Your task to perform on an android device: add a contact Image 0: 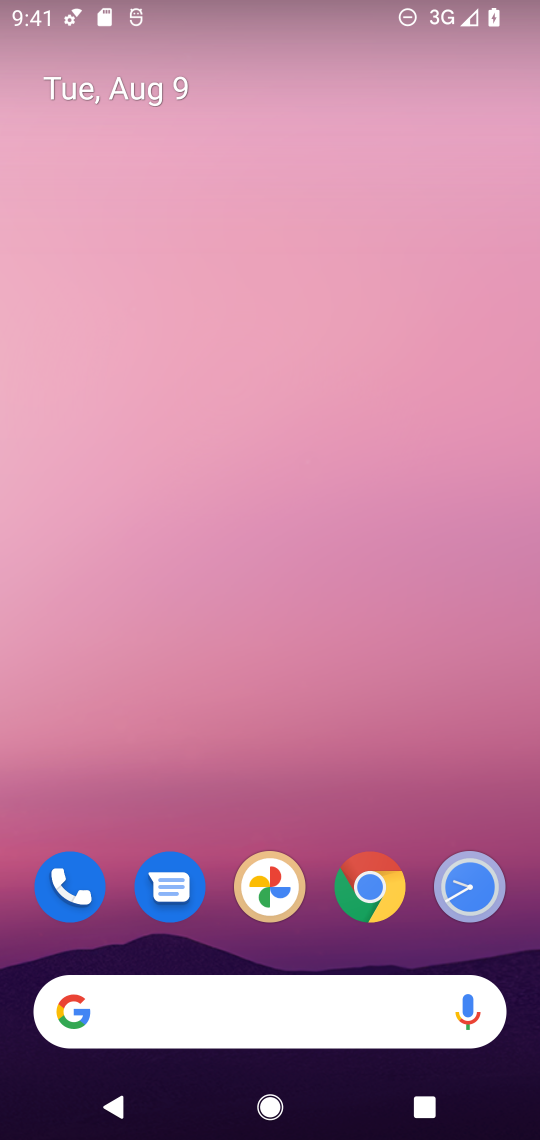
Step 0: drag from (349, 369) to (377, 177)
Your task to perform on an android device: add a contact Image 1: 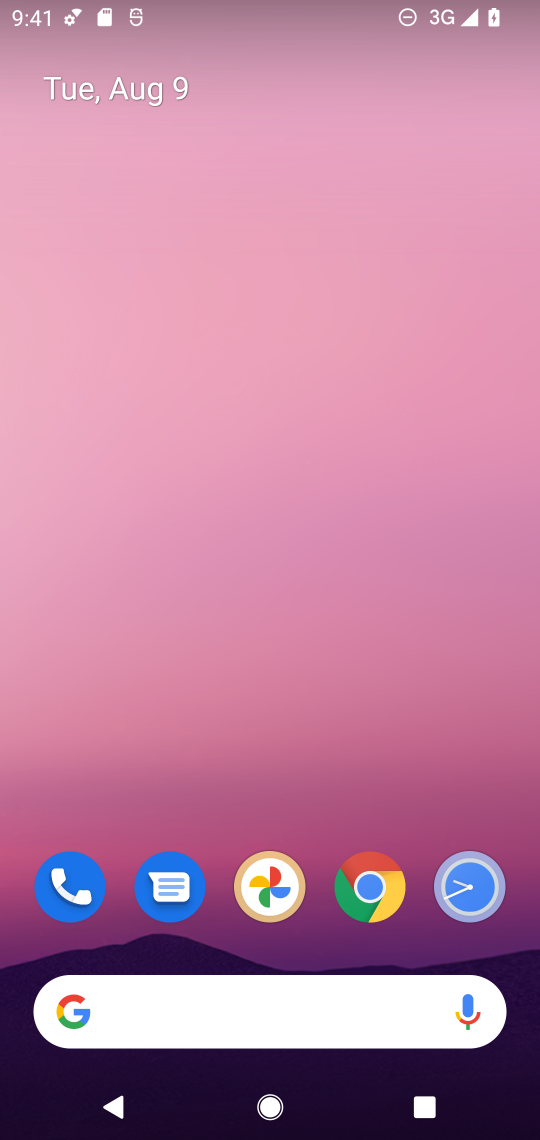
Step 1: drag from (281, 751) to (290, 188)
Your task to perform on an android device: add a contact Image 2: 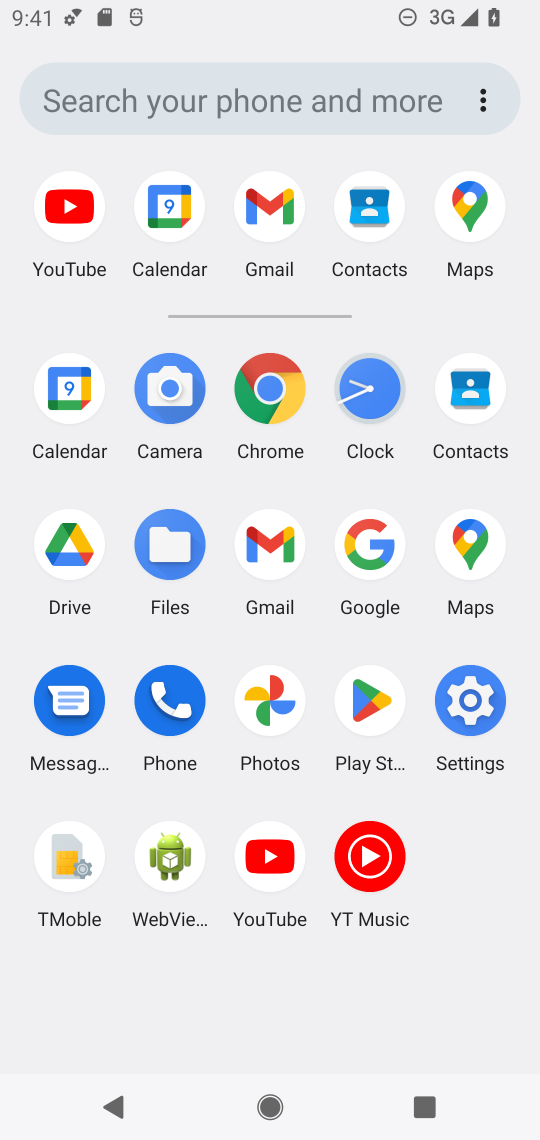
Step 2: click (457, 405)
Your task to perform on an android device: add a contact Image 3: 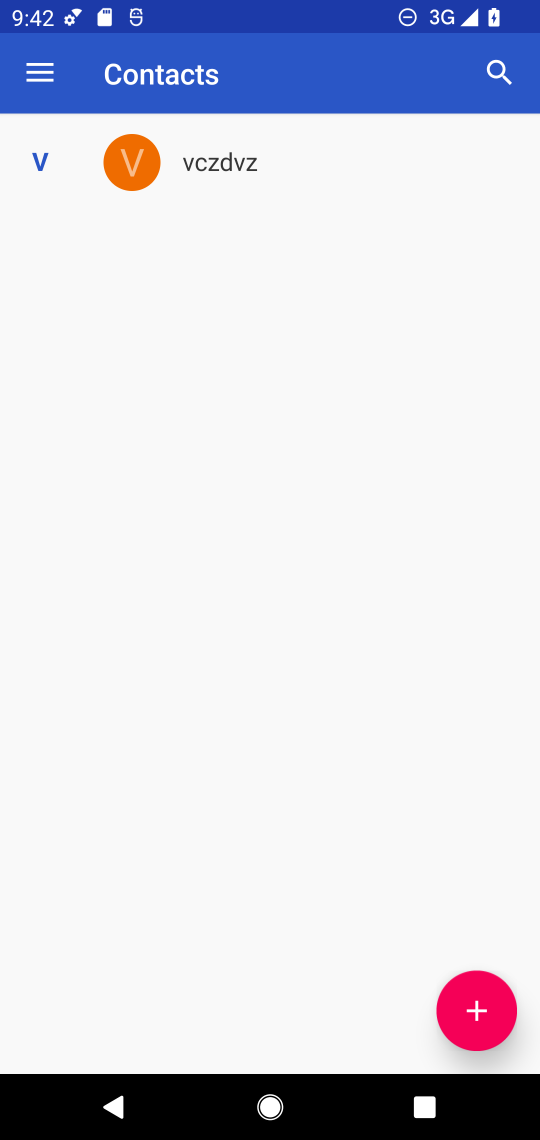
Step 3: click (476, 979)
Your task to perform on an android device: add a contact Image 4: 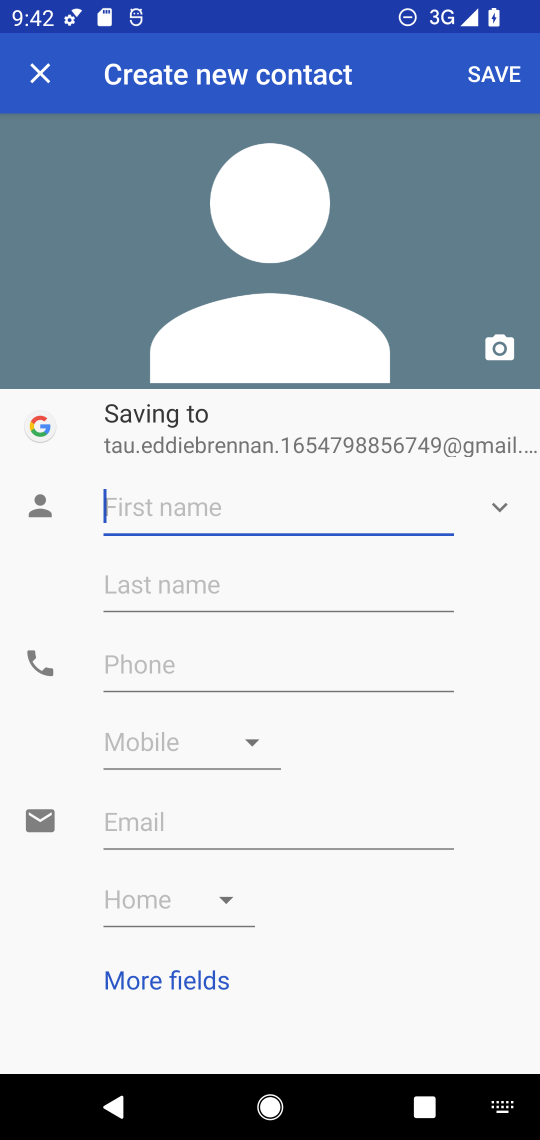
Step 4: type "dhgffhg"
Your task to perform on an android device: add a contact Image 5: 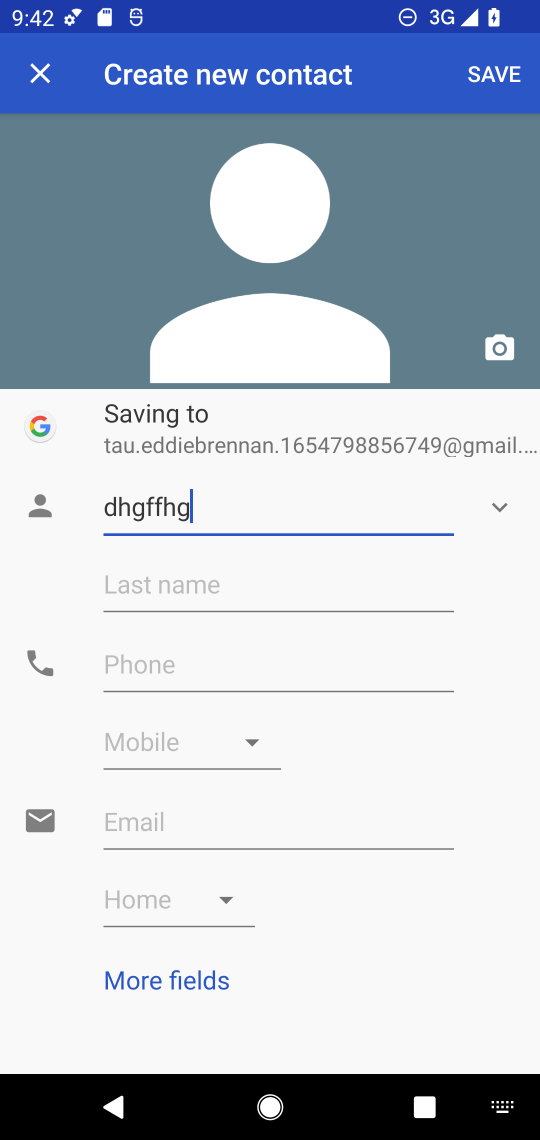
Step 5: click (277, 652)
Your task to perform on an android device: add a contact Image 6: 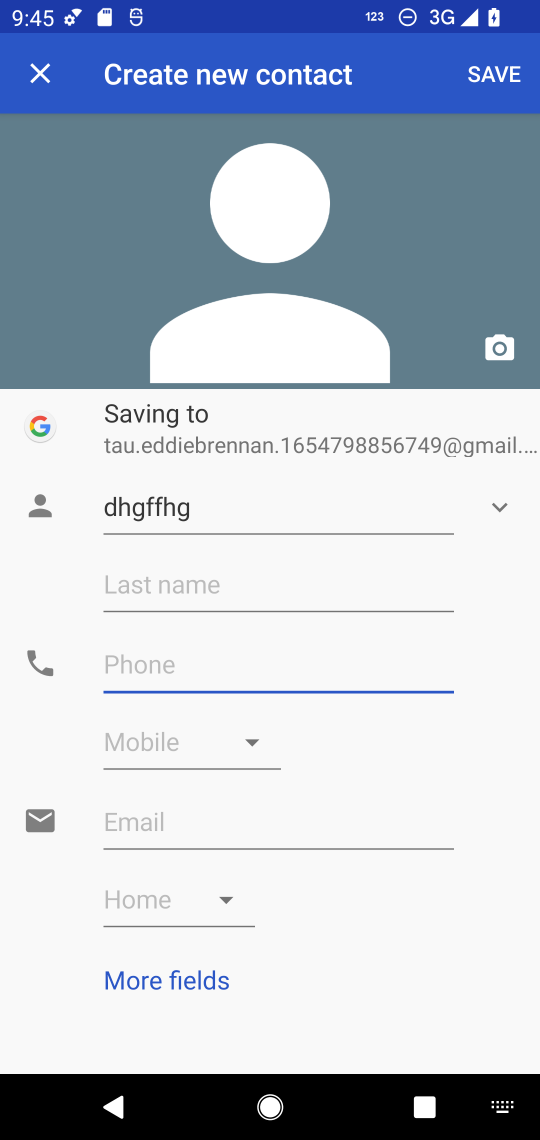
Step 6: type "75446446"
Your task to perform on an android device: add a contact Image 7: 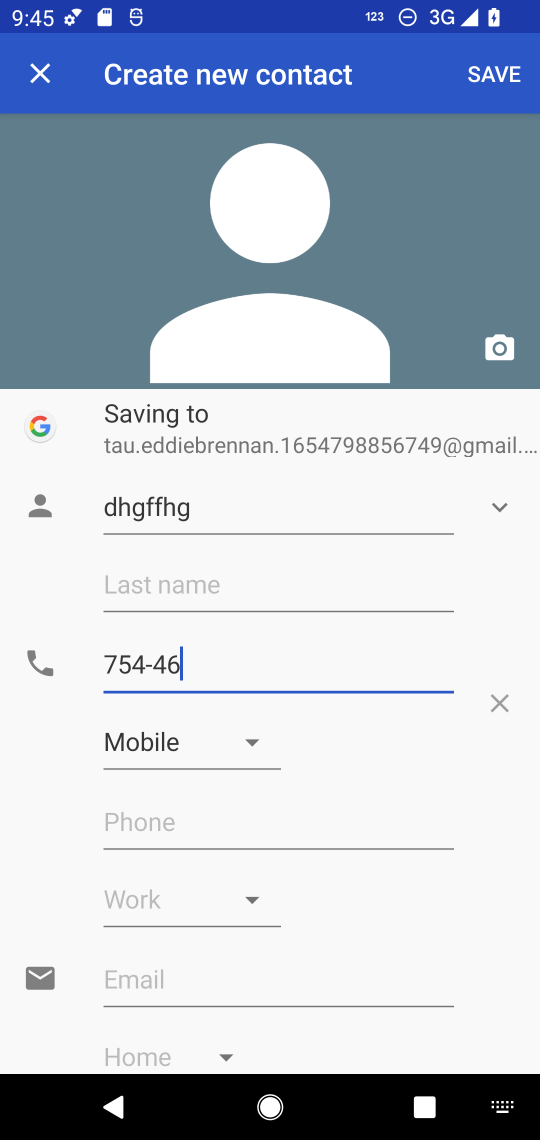
Step 7: type ""
Your task to perform on an android device: add a contact Image 8: 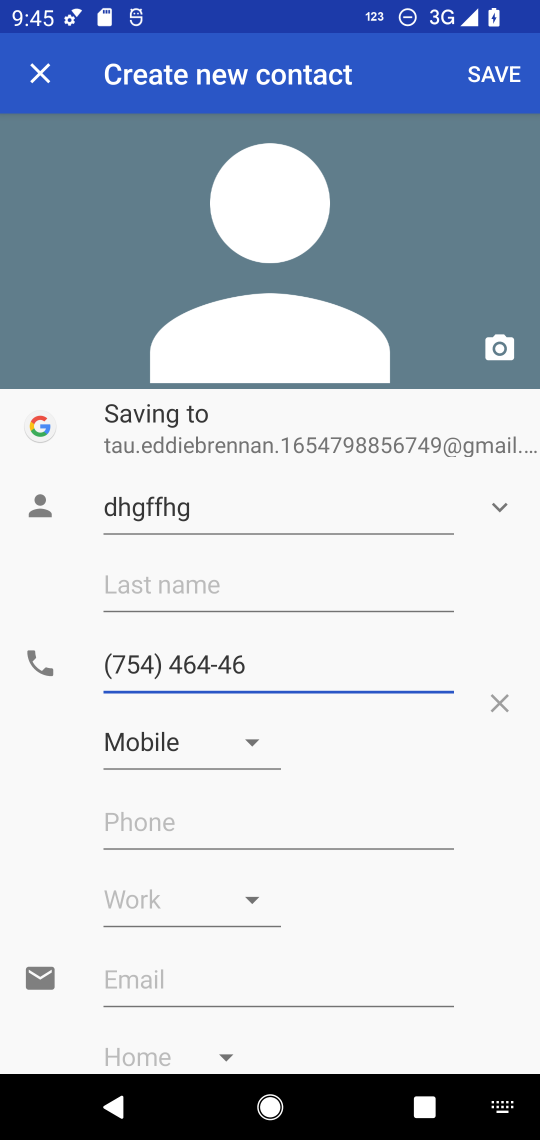
Step 8: click (506, 78)
Your task to perform on an android device: add a contact Image 9: 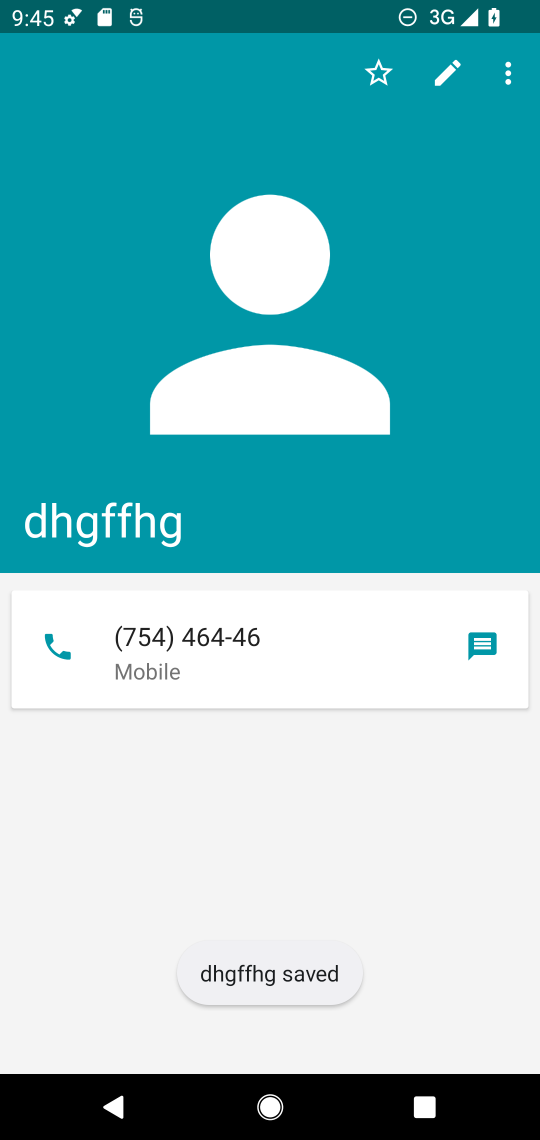
Step 9: task complete